Your task to perform on an android device: Search for pizza restaurants on Maps Image 0: 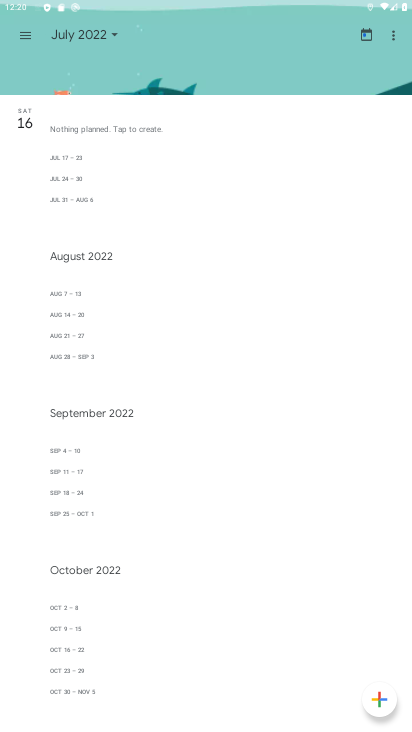
Step 0: press home button
Your task to perform on an android device: Search for pizza restaurants on Maps Image 1: 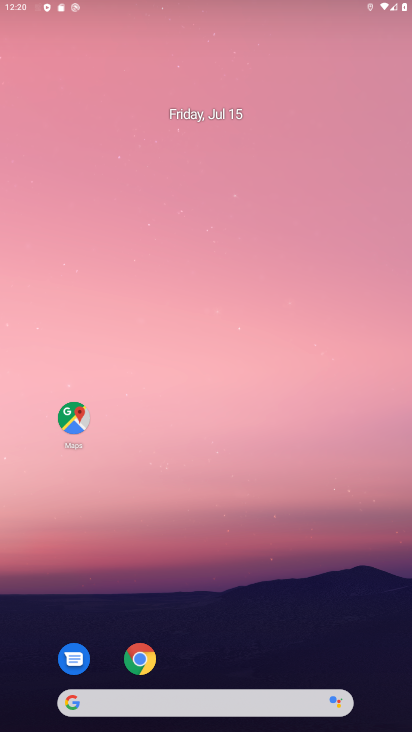
Step 1: drag from (224, 673) to (207, 108)
Your task to perform on an android device: Search for pizza restaurants on Maps Image 2: 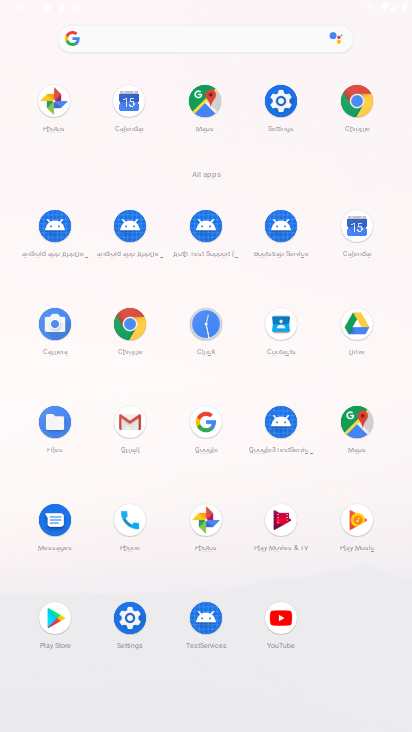
Step 2: click (358, 424)
Your task to perform on an android device: Search for pizza restaurants on Maps Image 3: 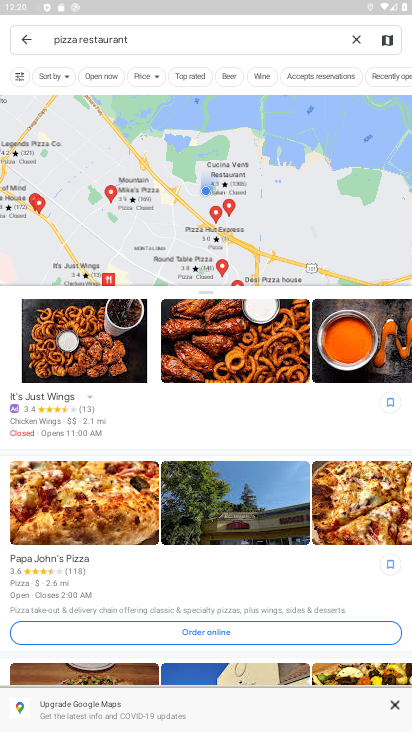
Step 3: task complete